Your task to perform on an android device: see sites visited before in the chrome app Image 0: 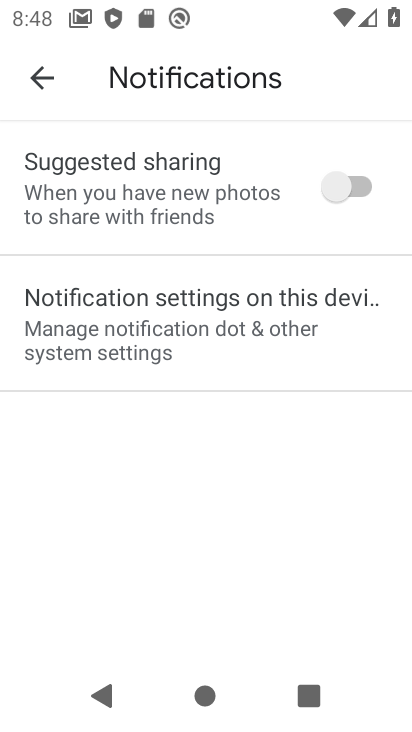
Step 0: press home button
Your task to perform on an android device: see sites visited before in the chrome app Image 1: 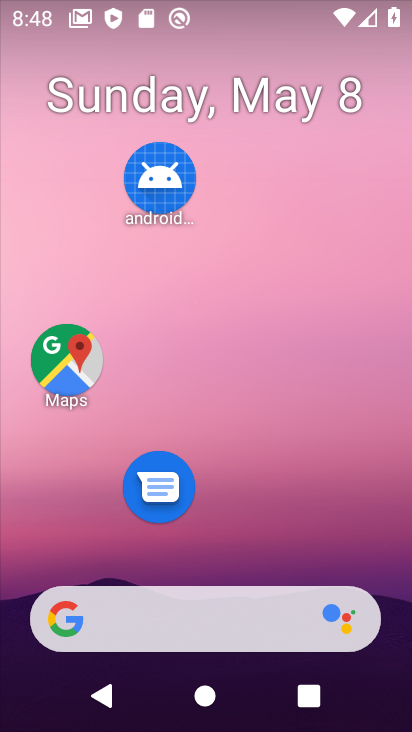
Step 1: drag from (311, 527) to (323, 148)
Your task to perform on an android device: see sites visited before in the chrome app Image 2: 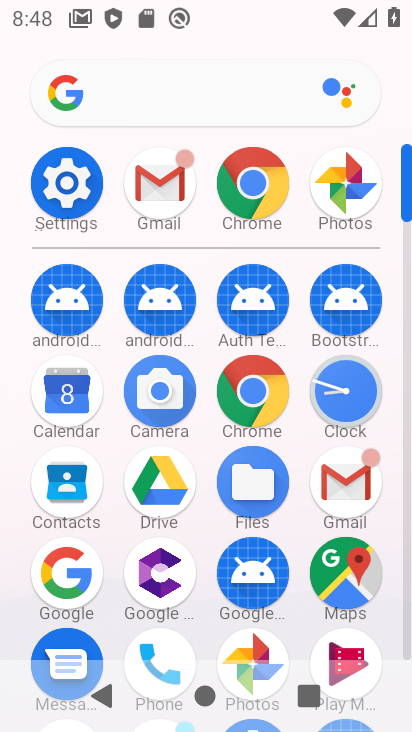
Step 2: click (248, 204)
Your task to perform on an android device: see sites visited before in the chrome app Image 3: 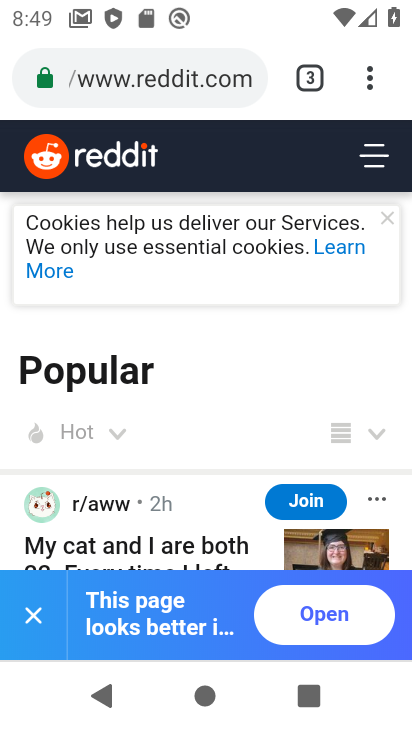
Step 3: click (370, 91)
Your task to perform on an android device: see sites visited before in the chrome app Image 4: 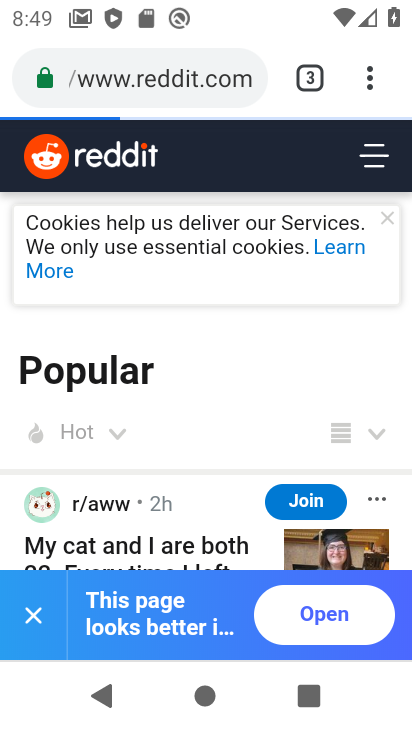
Step 4: click (370, 85)
Your task to perform on an android device: see sites visited before in the chrome app Image 5: 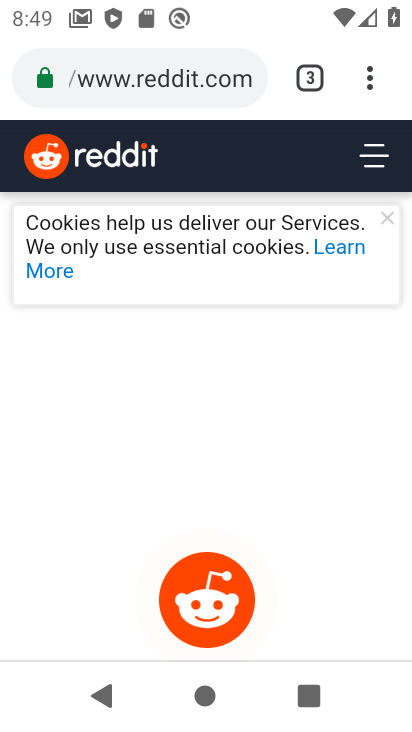
Step 5: click (370, 85)
Your task to perform on an android device: see sites visited before in the chrome app Image 6: 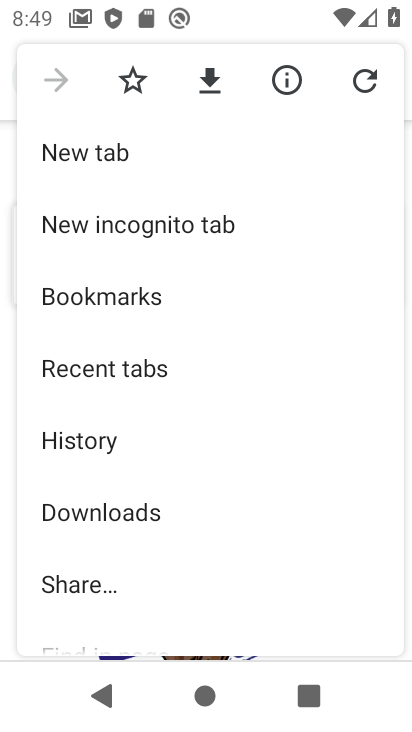
Step 6: drag from (91, 557) to (117, 438)
Your task to perform on an android device: see sites visited before in the chrome app Image 7: 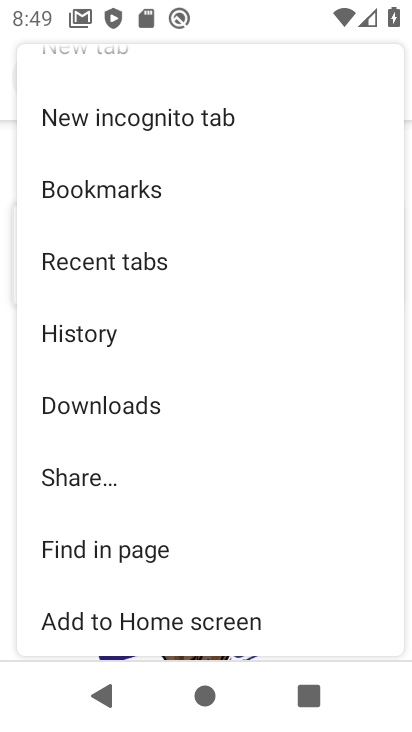
Step 7: click (101, 276)
Your task to perform on an android device: see sites visited before in the chrome app Image 8: 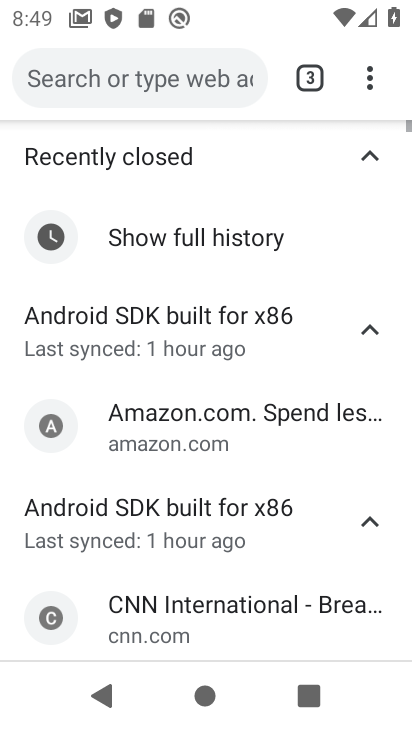
Step 8: task complete